Your task to perform on an android device: Open maps Image 0: 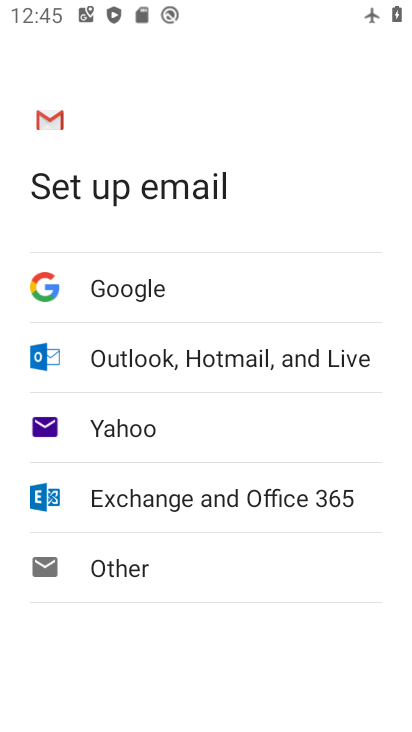
Step 0: press back button
Your task to perform on an android device: Open maps Image 1: 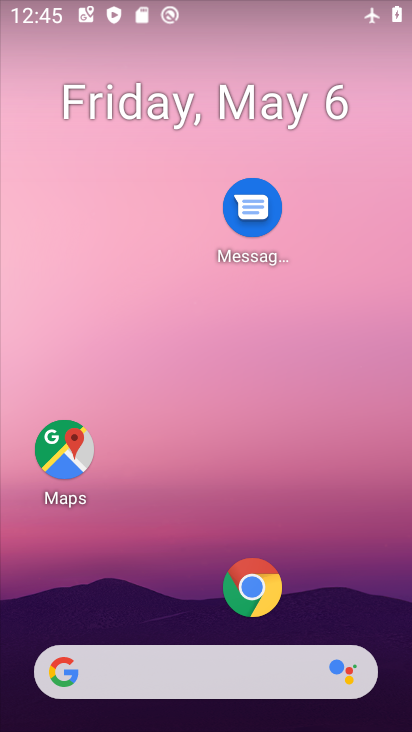
Step 1: click (77, 446)
Your task to perform on an android device: Open maps Image 2: 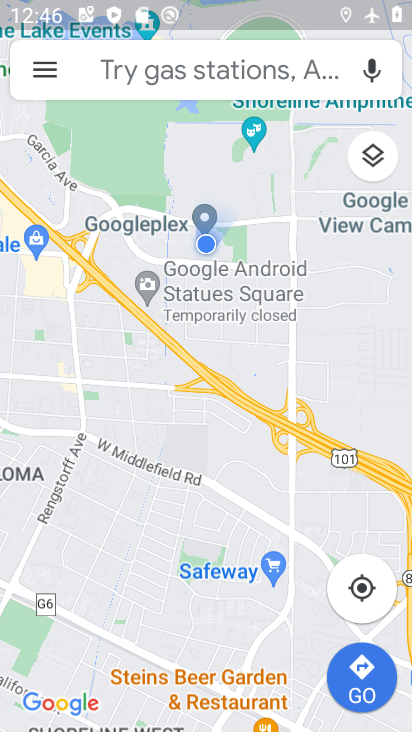
Step 2: task complete